Your task to perform on an android device: Find coffee shops on Maps Image 0: 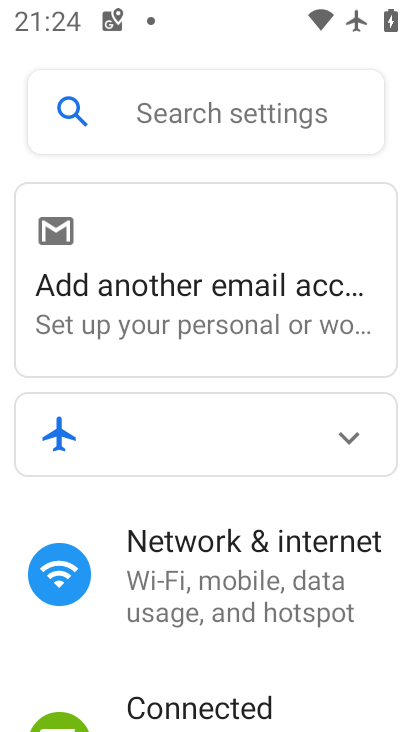
Step 0: press home button
Your task to perform on an android device: Find coffee shops on Maps Image 1: 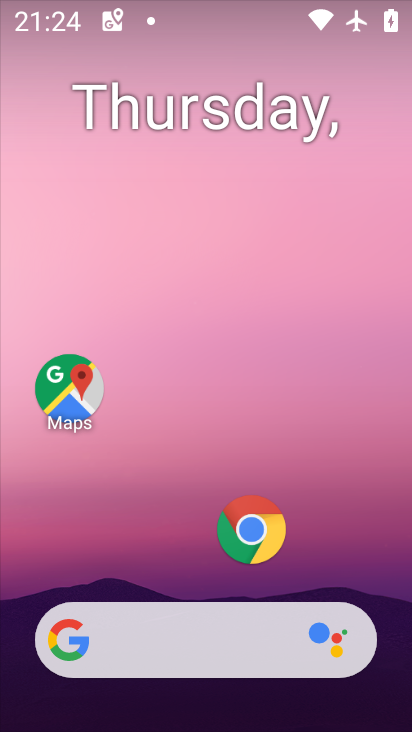
Step 1: click (69, 383)
Your task to perform on an android device: Find coffee shops on Maps Image 2: 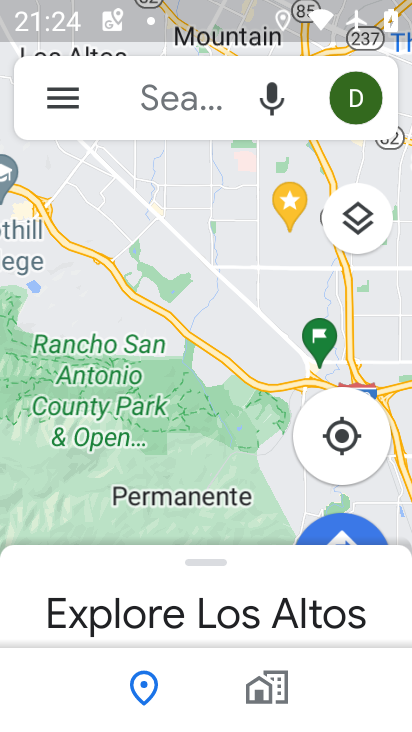
Step 2: click (159, 91)
Your task to perform on an android device: Find coffee shops on Maps Image 3: 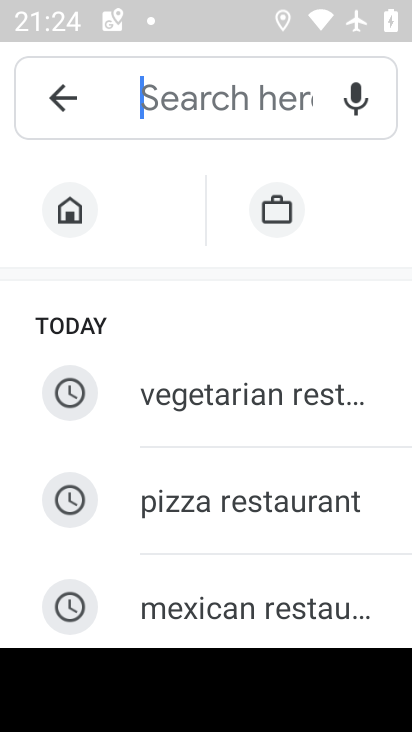
Step 3: type "coffee"
Your task to perform on an android device: Find coffee shops on Maps Image 4: 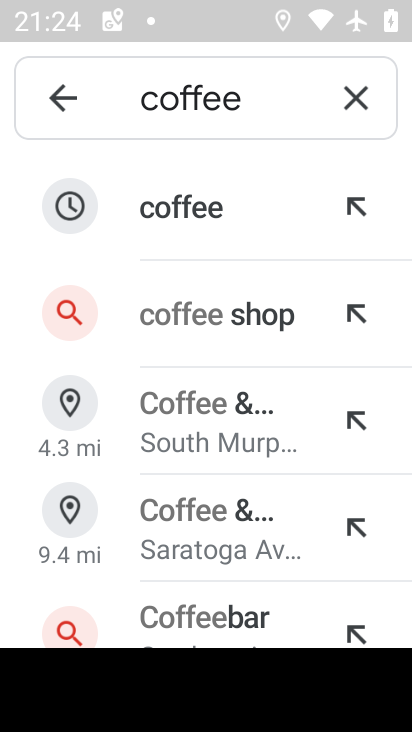
Step 4: click (239, 205)
Your task to perform on an android device: Find coffee shops on Maps Image 5: 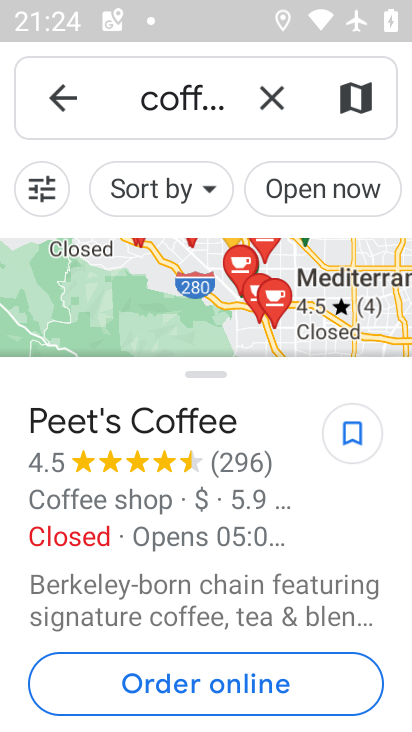
Step 5: task complete